Your task to perform on an android device: check out phone information Image 0: 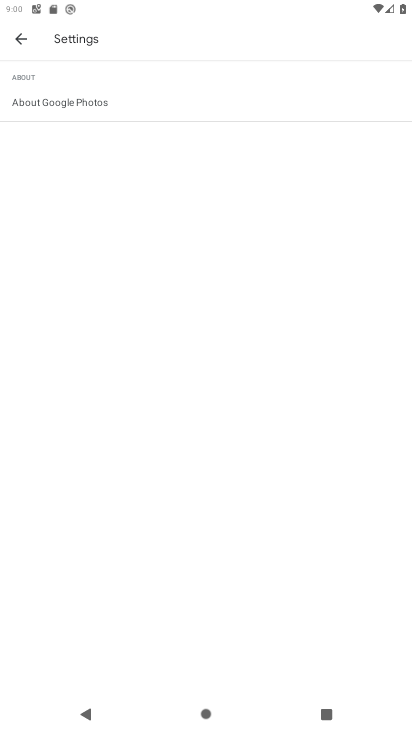
Step 0: press home button
Your task to perform on an android device: check out phone information Image 1: 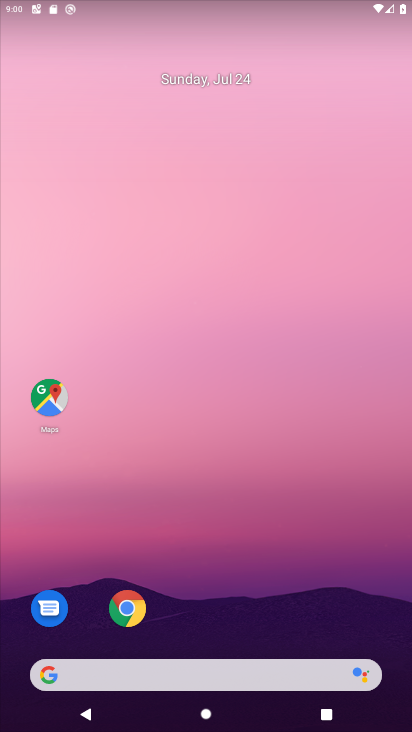
Step 1: drag from (244, 611) to (262, 118)
Your task to perform on an android device: check out phone information Image 2: 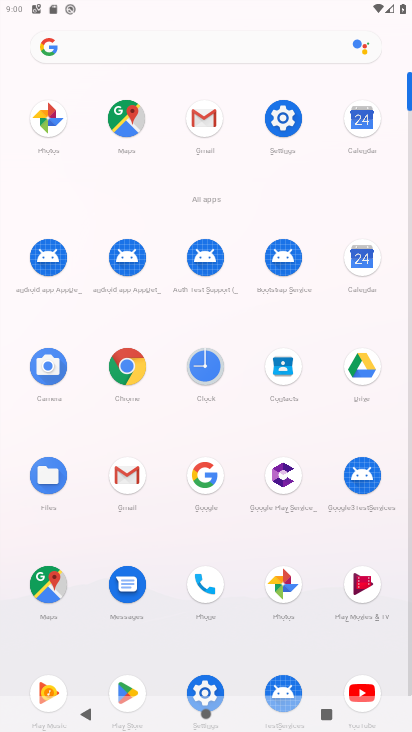
Step 2: click (280, 133)
Your task to perform on an android device: check out phone information Image 3: 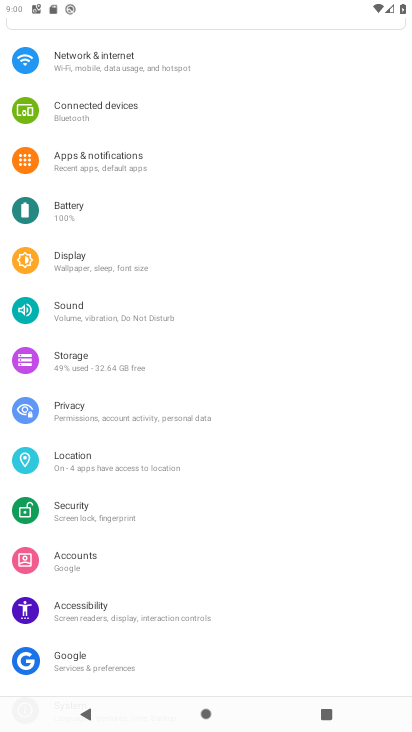
Step 3: drag from (168, 561) to (125, 276)
Your task to perform on an android device: check out phone information Image 4: 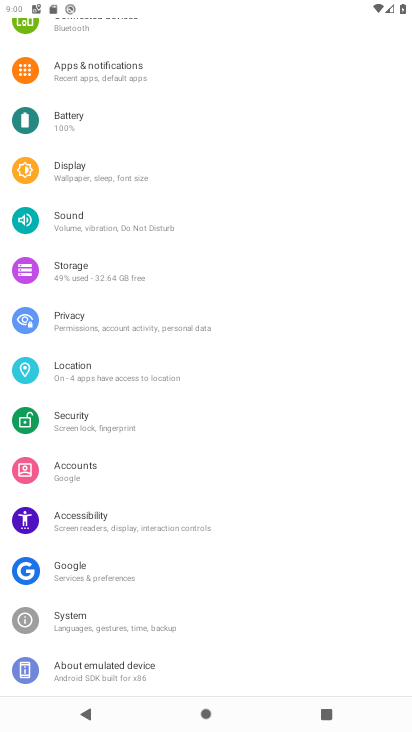
Step 4: click (134, 662)
Your task to perform on an android device: check out phone information Image 5: 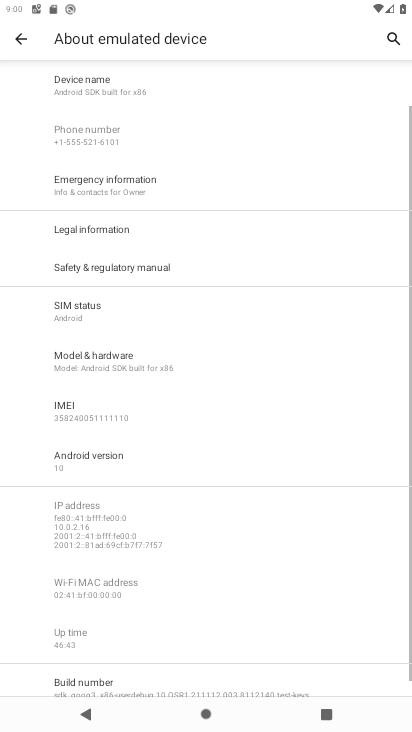
Step 5: task complete